Your task to perform on an android device: Go to notification settings Image 0: 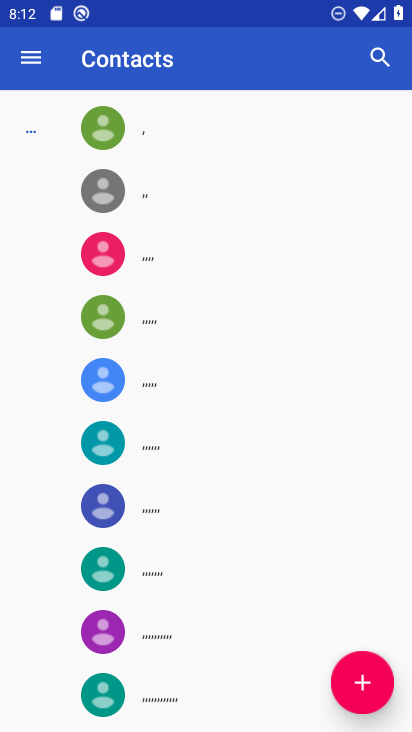
Step 0: press home button
Your task to perform on an android device: Go to notification settings Image 1: 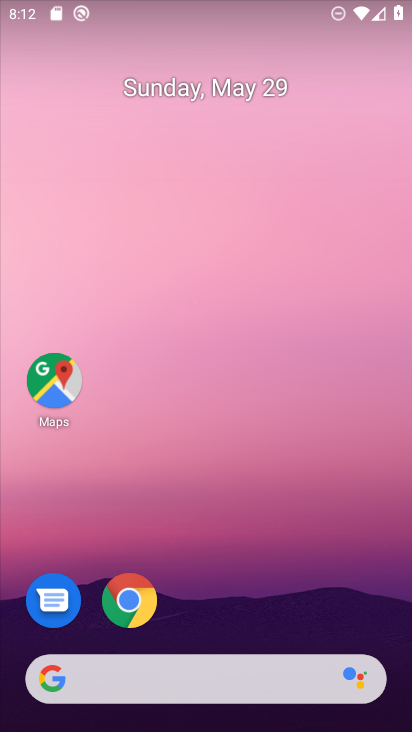
Step 1: drag from (113, 729) to (136, 48)
Your task to perform on an android device: Go to notification settings Image 2: 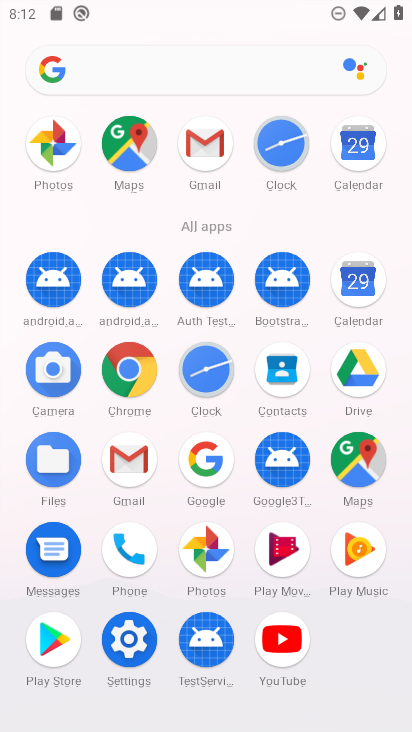
Step 2: click (136, 649)
Your task to perform on an android device: Go to notification settings Image 3: 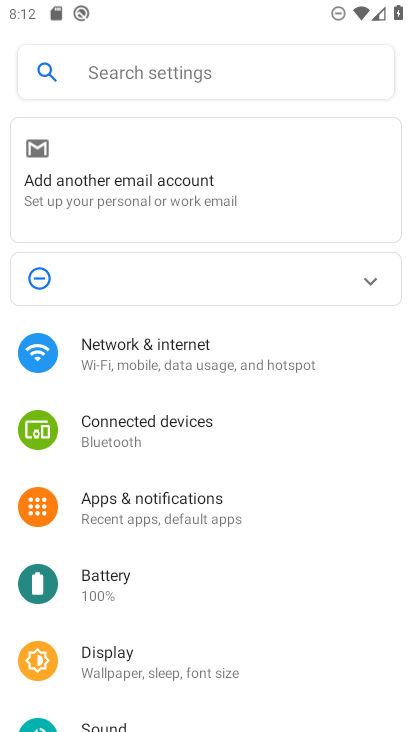
Step 3: click (154, 496)
Your task to perform on an android device: Go to notification settings Image 4: 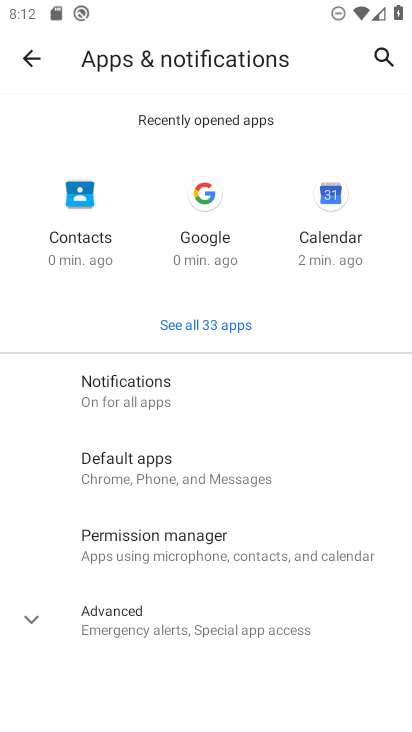
Step 4: task complete